Your task to perform on an android device: change the clock display to analog Image 0: 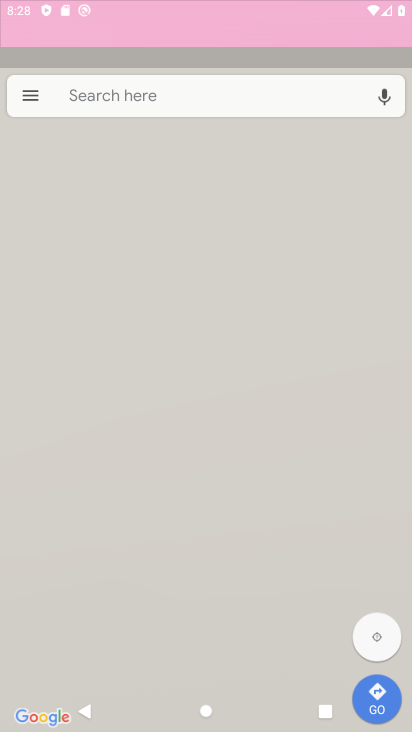
Step 0: press back button
Your task to perform on an android device: change the clock display to analog Image 1: 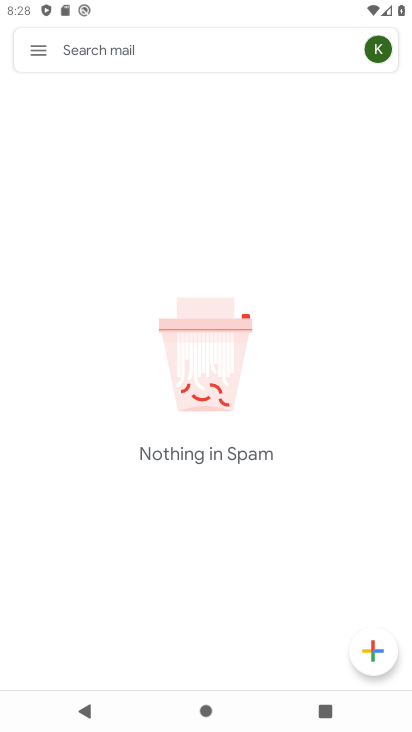
Step 1: press home button
Your task to perform on an android device: change the clock display to analog Image 2: 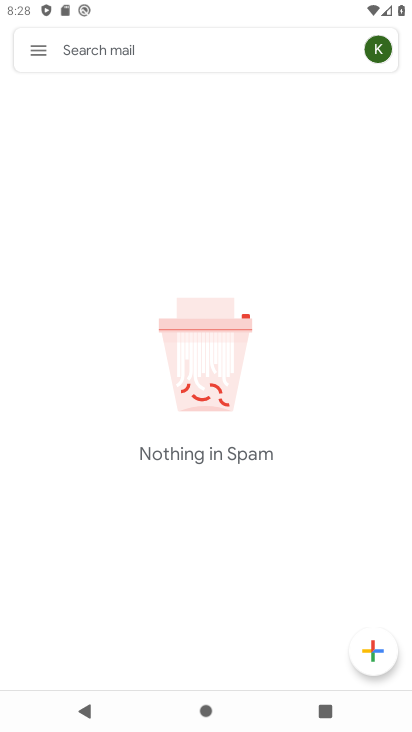
Step 2: press home button
Your task to perform on an android device: change the clock display to analog Image 3: 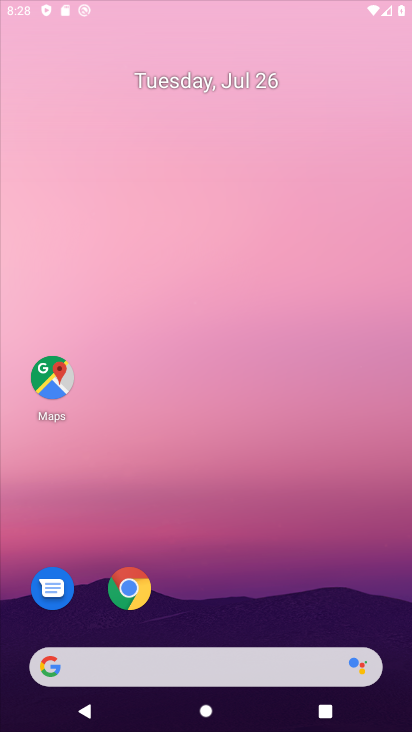
Step 3: press back button
Your task to perform on an android device: change the clock display to analog Image 4: 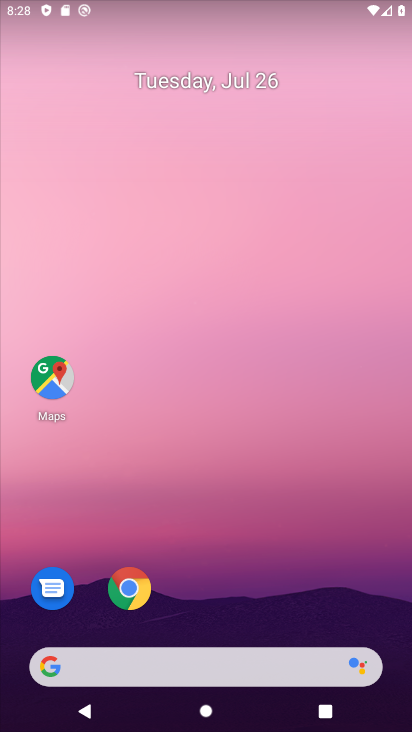
Step 4: drag from (221, 604) to (175, 29)
Your task to perform on an android device: change the clock display to analog Image 5: 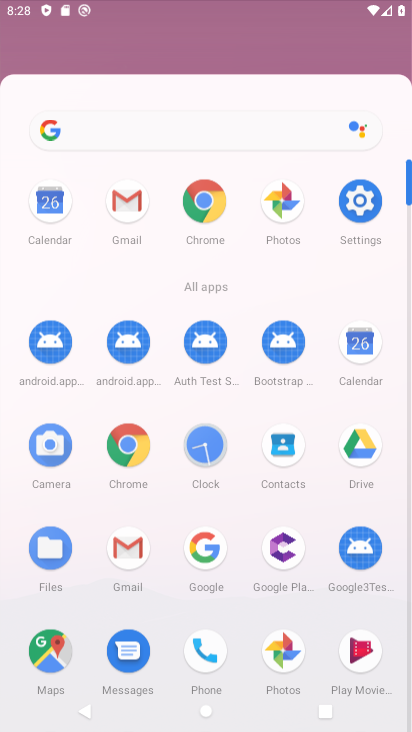
Step 5: drag from (217, 435) to (218, 161)
Your task to perform on an android device: change the clock display to analog Image 6: 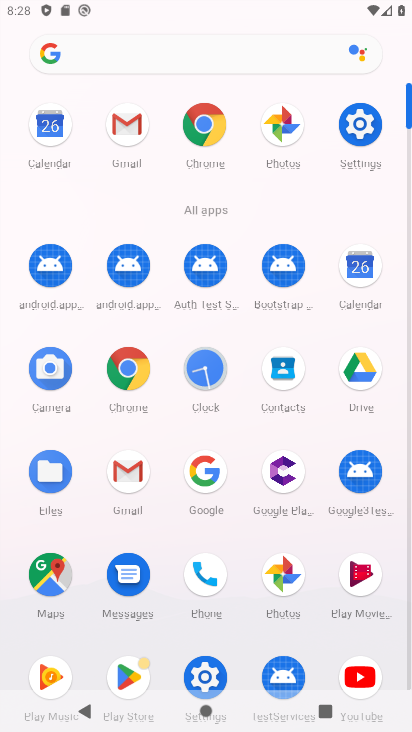
Step 6: drag from (243, 650) to (204, 122)
Your task to perform on an android device: change the clock display to analog Image 7: 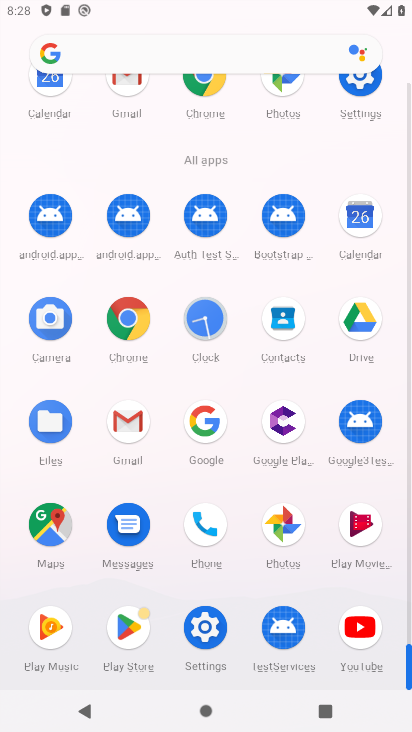
Step 7: click (354, 82)
Your task to perform on an android device: change the clock display to analog Image 8: 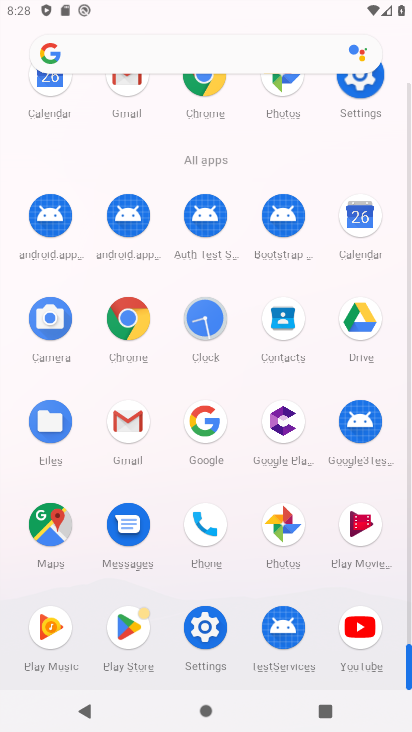
Step 8: click (355, 81)
Your task to perform on an android device: change the clock display to analog Image 9: 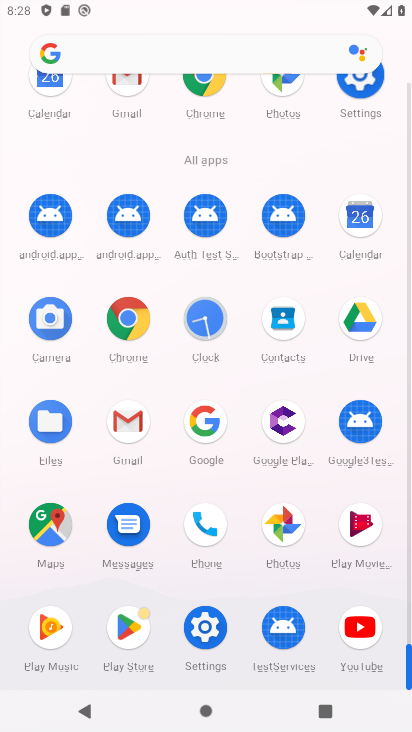
Step 9: click (356, 81)
Your task to perform on an android device: change the clock display to analog Image 10: 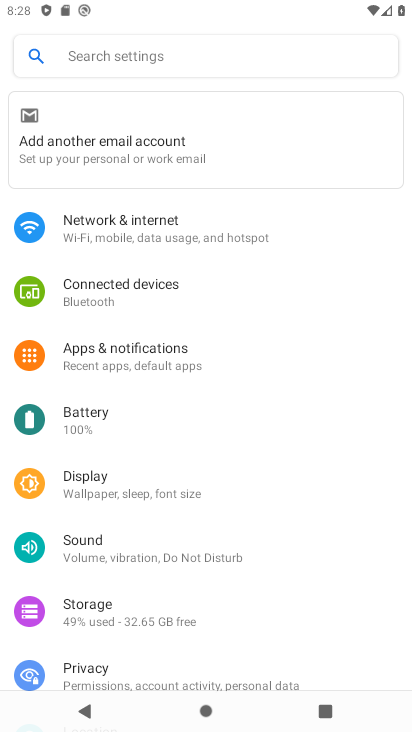
Step 10: press back button
Your task to perform on an android device: change the clock display to analog Image 11: 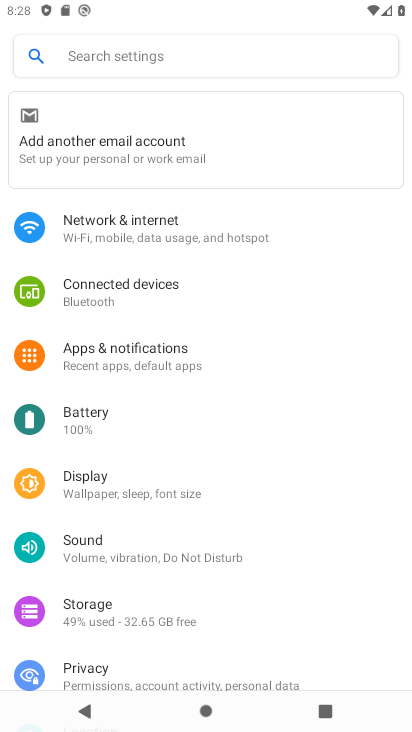
Step 11: press back button
Your task to perform on an android device: change the clock display to analog Image 12: 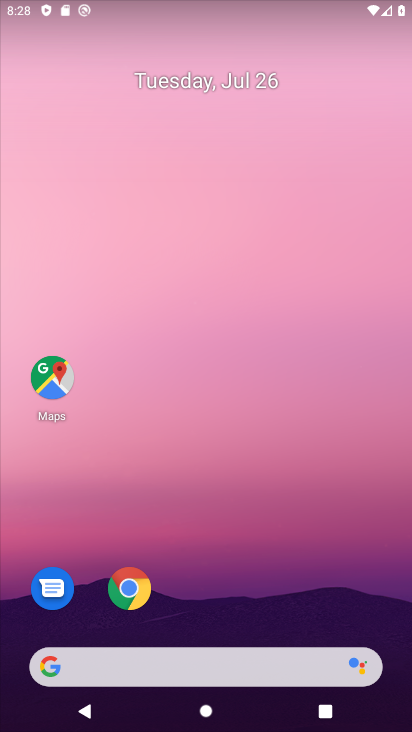
Step 12: drag from (283, 457) to (249, 91)
Your task to perform on an android device: change the clock display to analog Image 13: 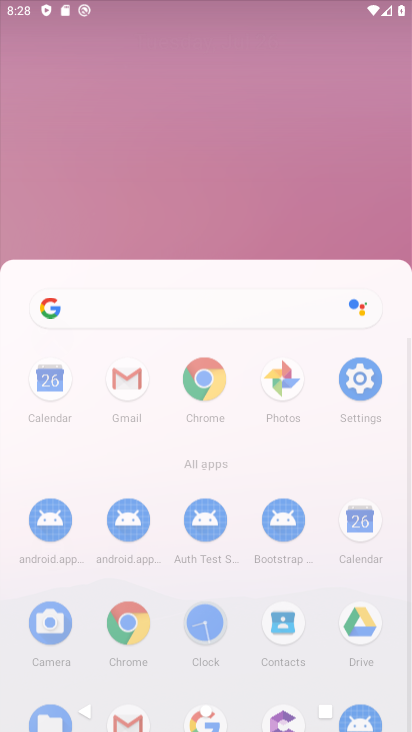
Step 13: drag from (272, 484) to (269, 199)
Your task to perform on an android device: change the clock display to analog Image 14: 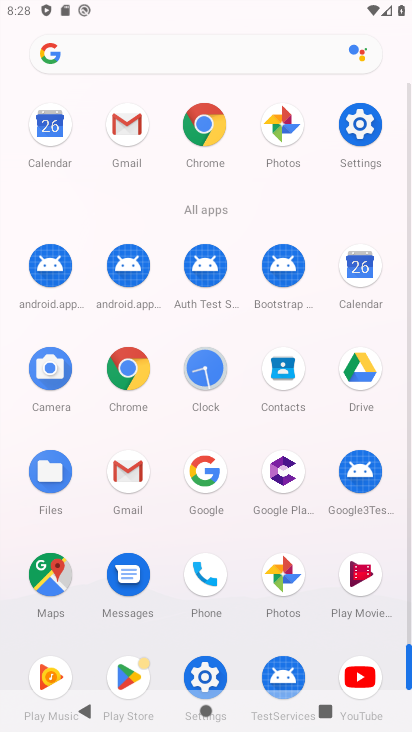
Step 14: click (202, 357)
Your task to perform on an android device: change the clock display to analog Image 15: 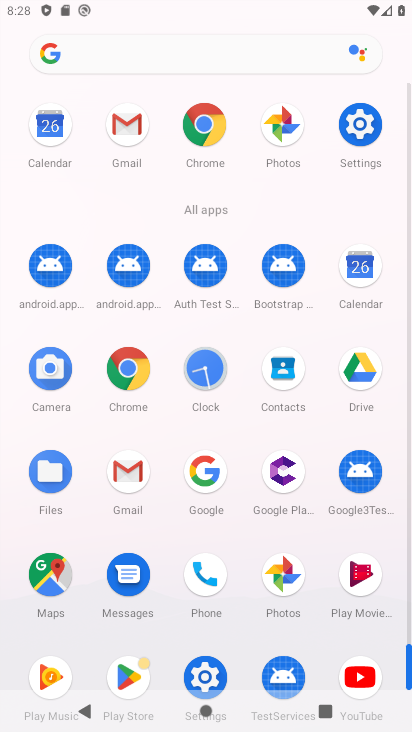
Step 15: click (209, 360)
Your task to perform on an android device: change the clock display to analog Image 16: 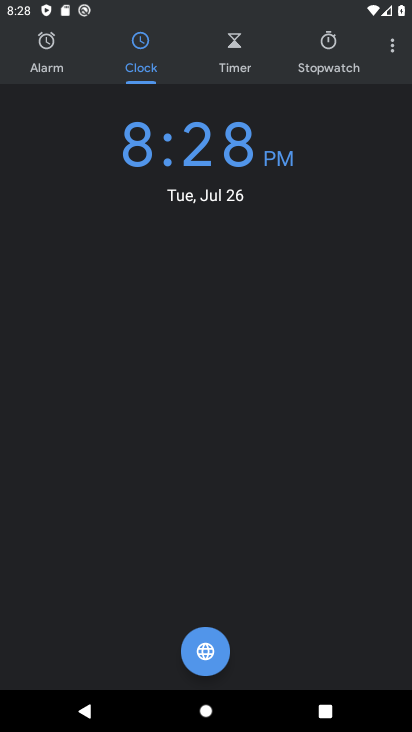
Step 16: click (392, 43)
Your task to perform on an android device: change the clock display to analog Image 17: 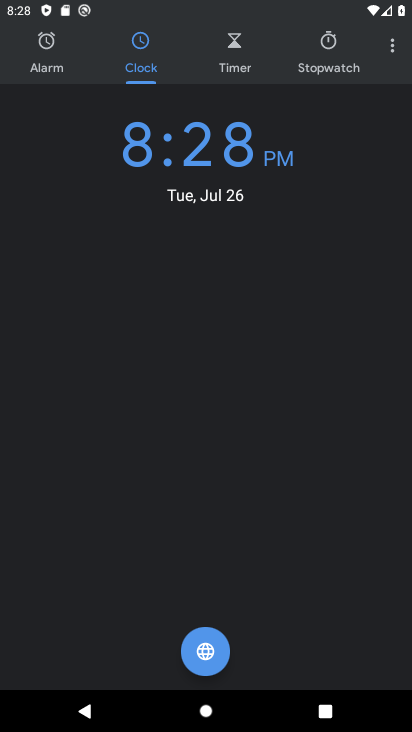
Step 17: click (395, 37)
Your task to perform on an android device: change the clock display to analog Image 18: 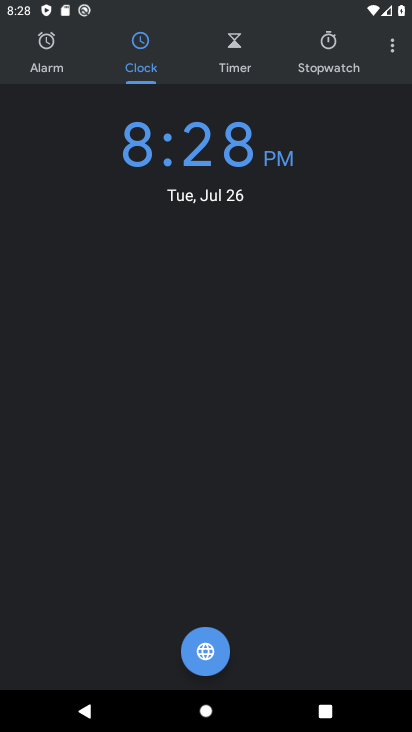
Step 18: click (396, 38)
Your task to perform on an android device: change the clock display to analog Image 19: 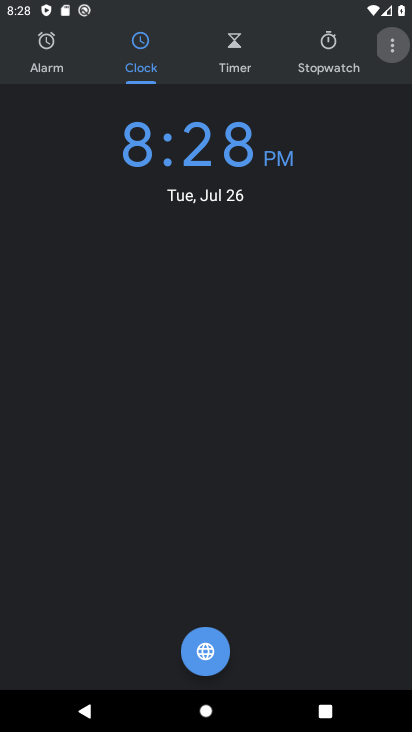
Step 19: click (396, 45)
Your task to perform on an android device: change the clock display to analog Image 20: 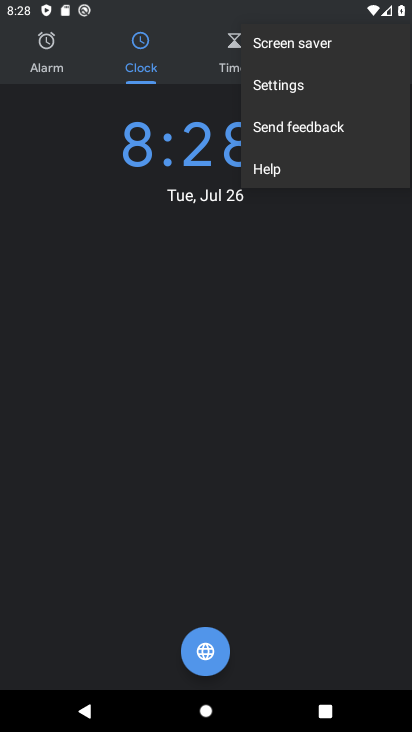
Step 20: click (397, 47)
Your task to perform on an android device: change the clock display to analog Image 21: 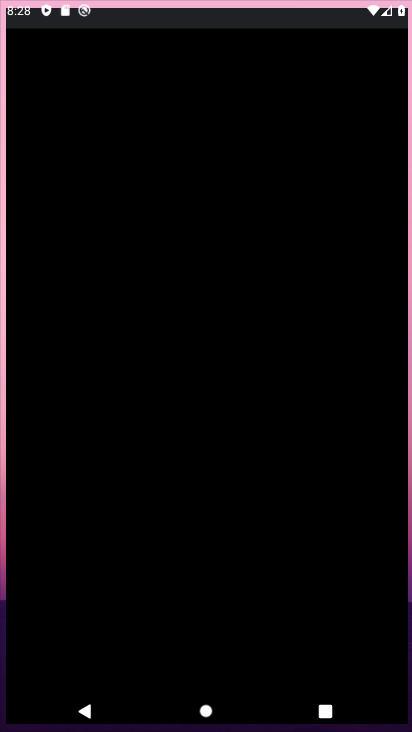
Step 21: click (295, 93)
Your task to perform on an android device: change the clock display to analog Image 22: 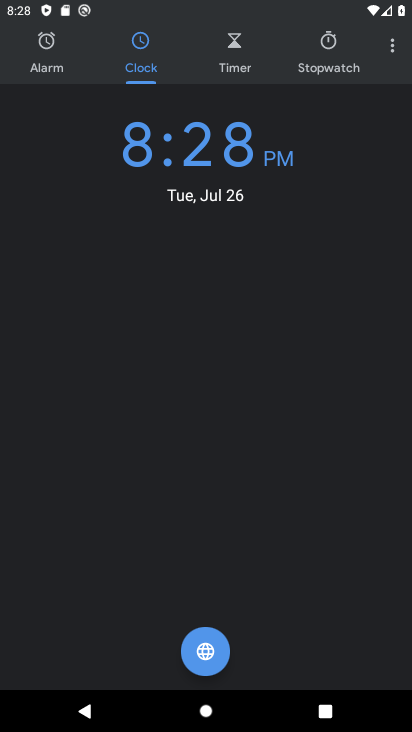
Step 22: click (389, 47)
Your task to perform on an android device: change the clock display to analog Image 23: 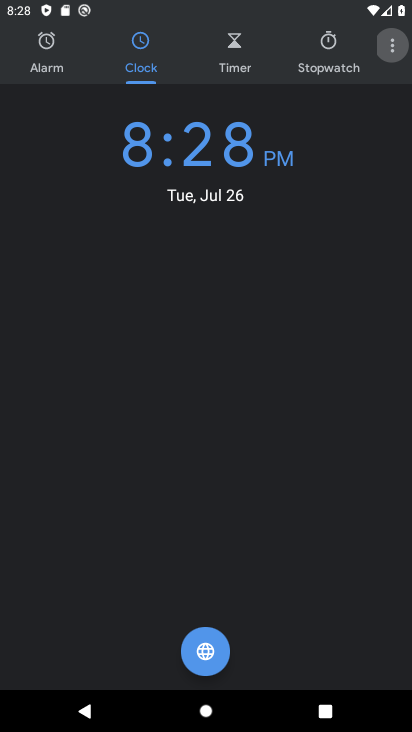
Step 23: click (389, 47)
Your task to perform on an android device: change the clock display to analog Image 24: 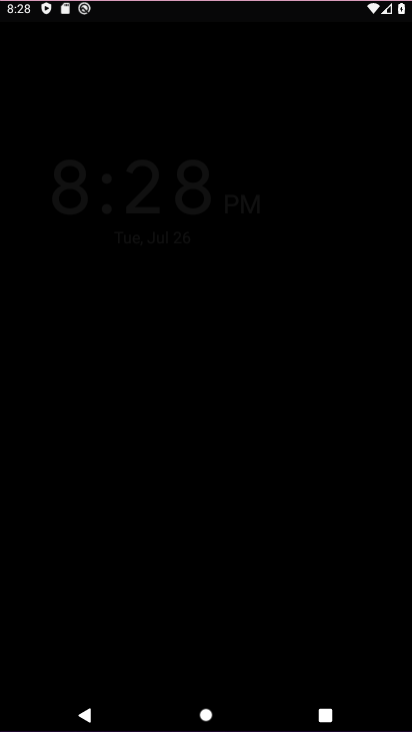
Step 24: click (280, 86)
Your task to perform on an android device: change the clock display to analog Image 25: 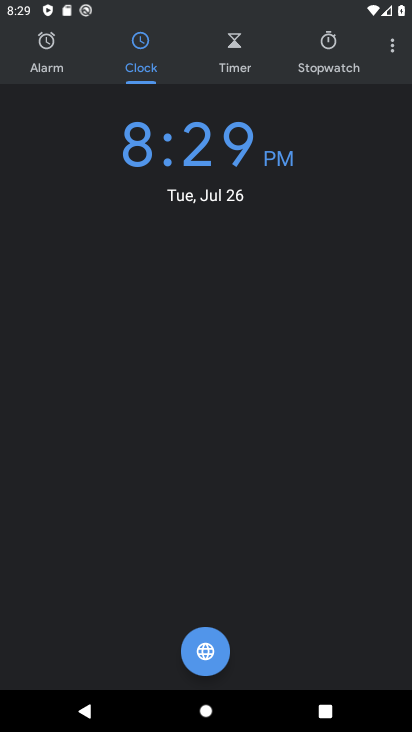
Step 25: click (389, 47)
Your task to perform on an android device: change the clock display to analog Image 26: 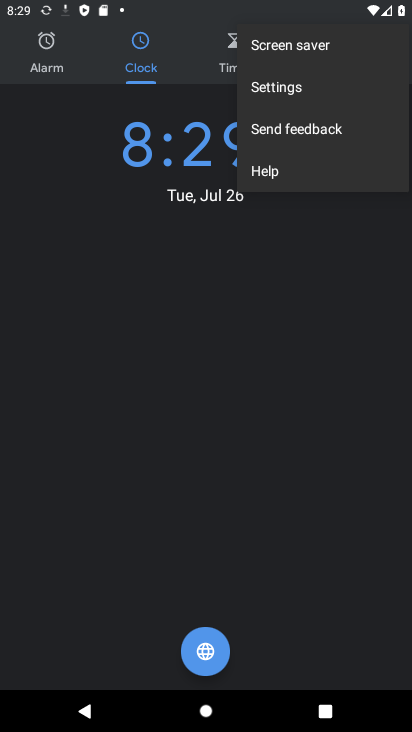
Step 26: click (265, 85)
Your task to perform on an android device: change the clock display to analog Image 27: 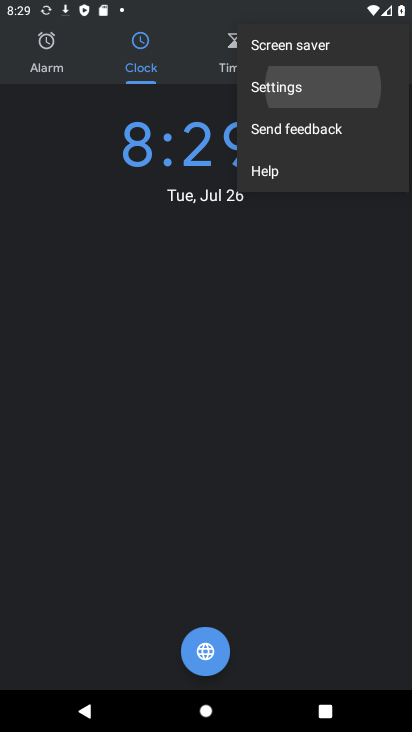
Step 27: click (273, 87)
Your task to perform on an android device: change the clock display to analog Image 28: 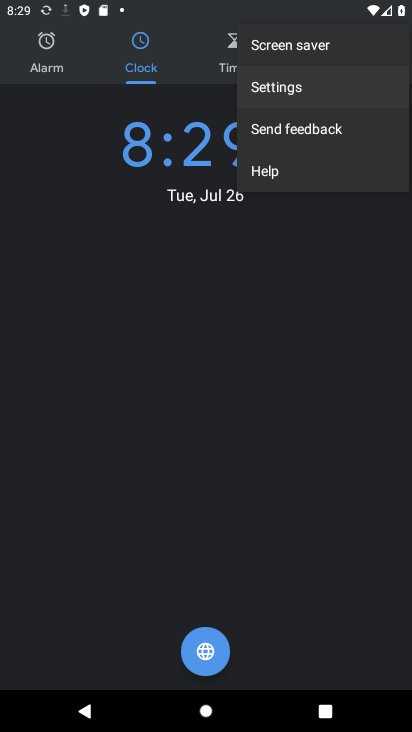
Step 28: click (276, 85)
Your task to perform on an android device: change the clock display to analog Image 29: 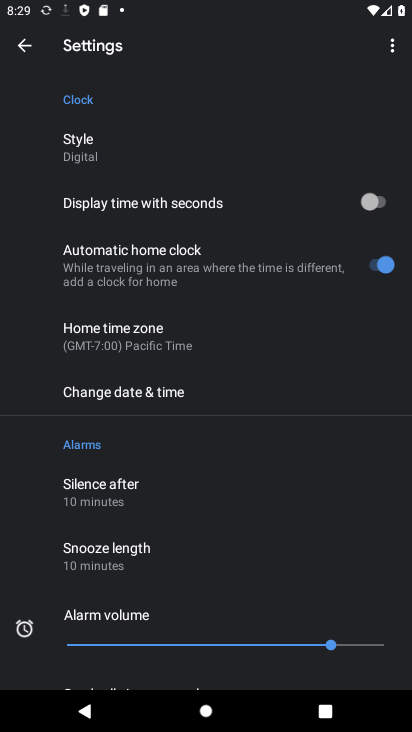
Step 29: click (98, 146)
Your task to perform on an android device: change the clock display to analog Image 30: 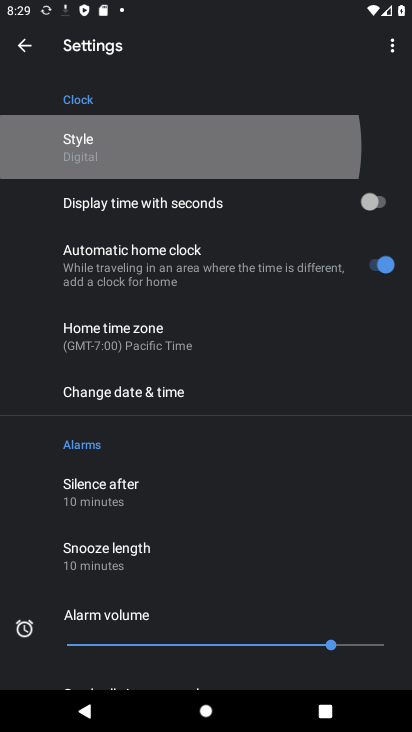
Step 30: click (96, 145)
Your task to perform on an android device: change the clock display to analog Image 31: 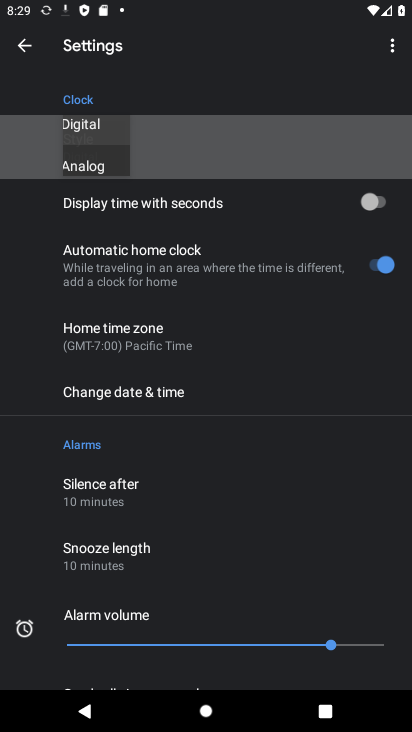
Step 31: click (97, 145)
Your task to perform on an android device: change the clock display to analog Image 32: 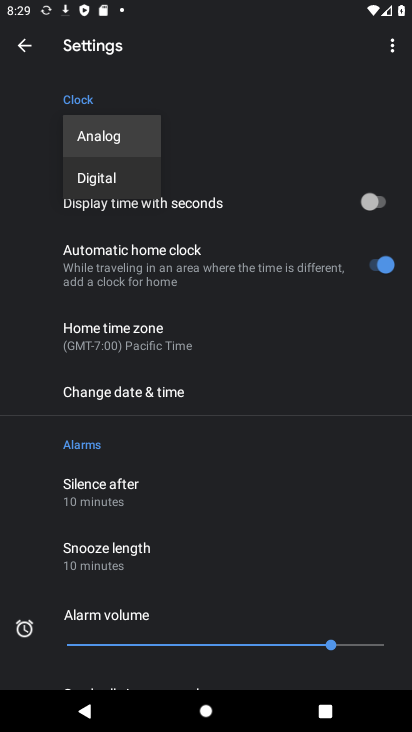
Step 32: click (106, 139)
Your task to perform on an android device: change the clock display to analog Image 33: 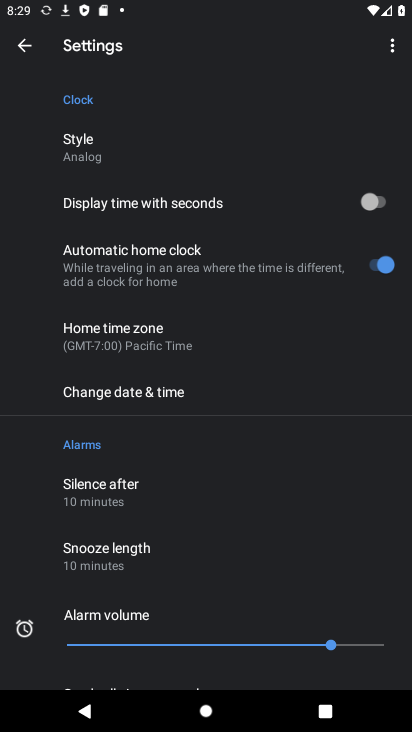
Step 33: task complete